Your task to perform on an android device: Open the phone app and click the voicemail tab. Image 0: 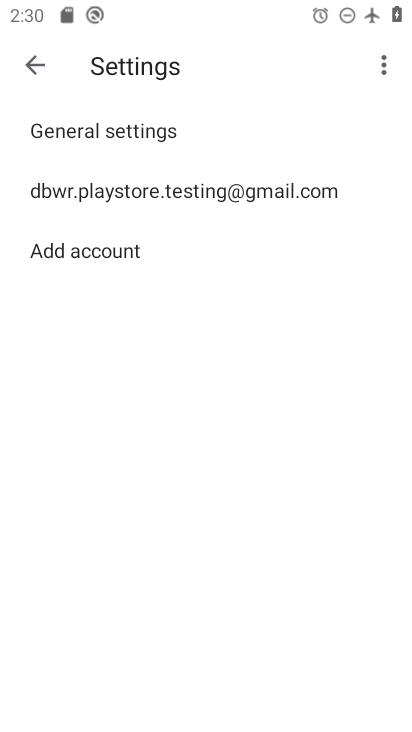
Step 0: press home button
Your task to perform on an android device: Open the phone app and click the voicemail tab. Image 1: 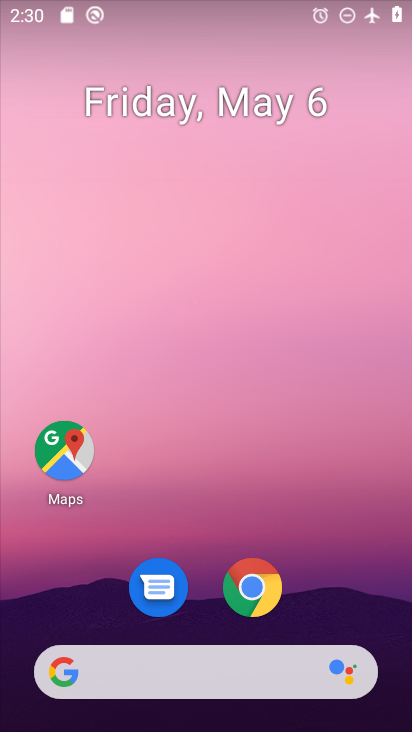
Step 1: drag from (206, 565) to (230, 115)
Your task to perform on an android device: Open the phone app and click the voicemail tab. Image 2: 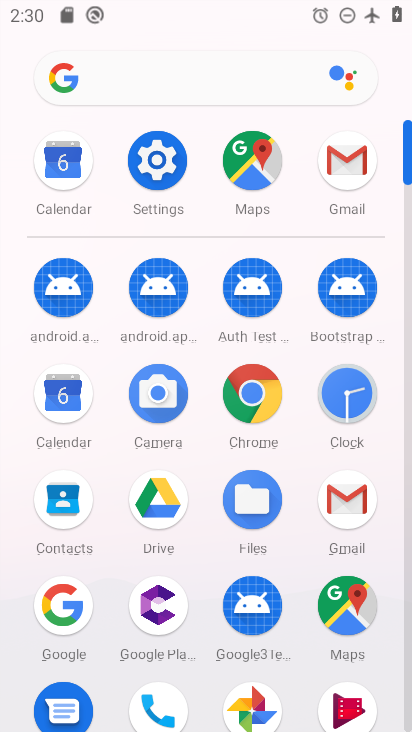
Step 2: drag from (196, 553) to (212, 380)
Your task to perform on an android device: Open the phone app and click the voicemail tab. Image 3: 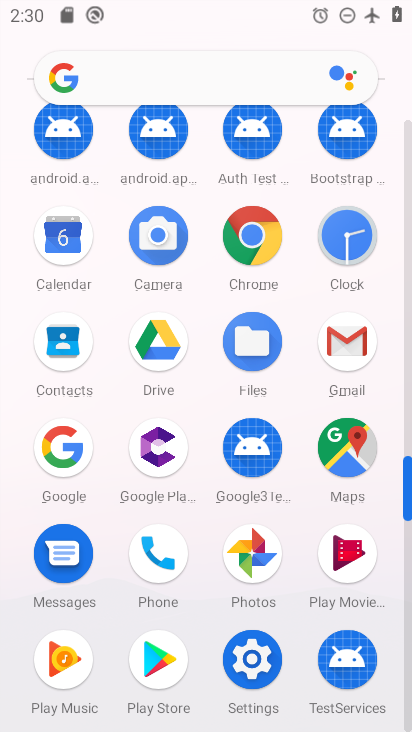
Step 3: click (165, 544)
Your task to perform on an android device: Open the phone app and click the voicemail tab. Image 4: 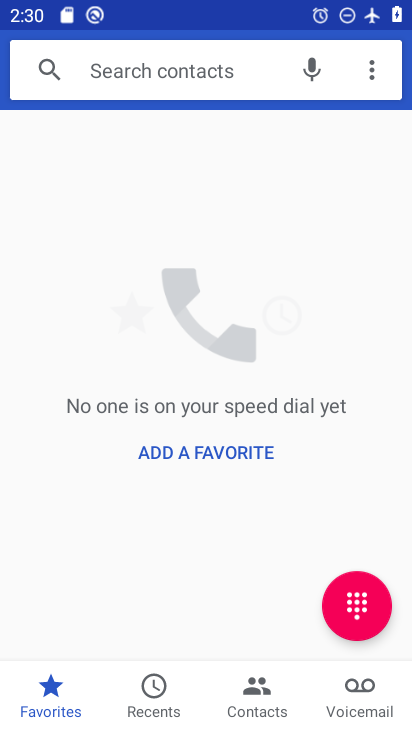
Step 4: click (357, 683)
Your task to perform on an android device: Open the phone app and click the voicemail tab. Image 5: 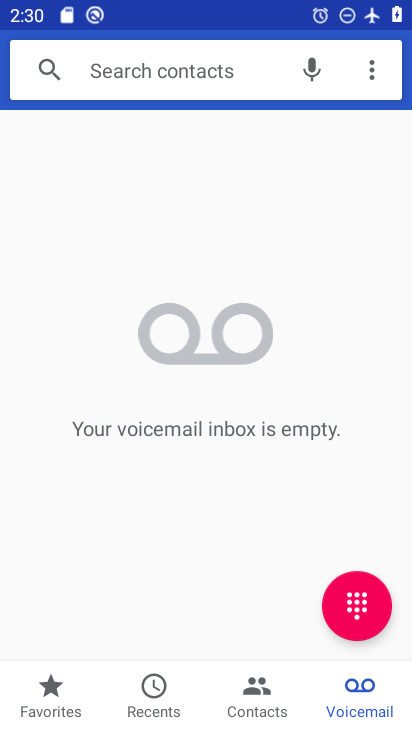
Step 5: task complete